Your task to perform on an android device: toggle notification dots Image 0: 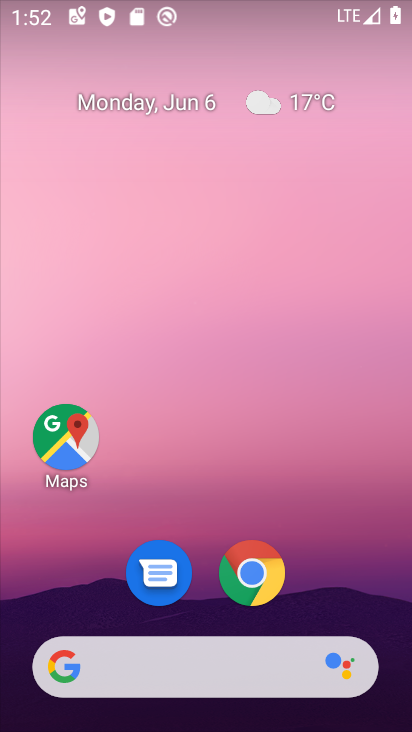
Step 0: drag from (377, 562) to (363, 235)
Your task to perform on an android device: toggle notification dots Image 1: 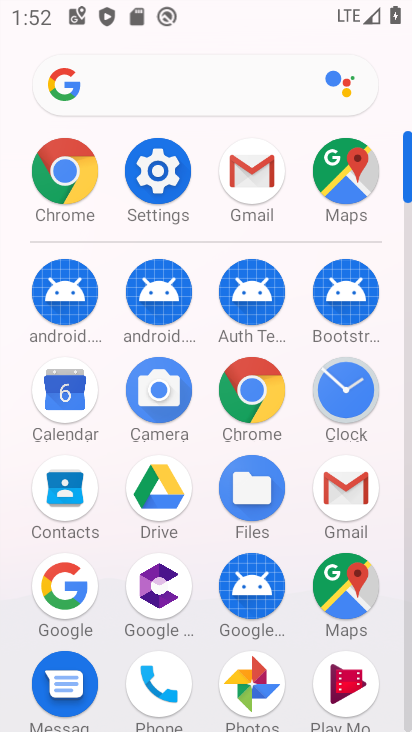
Step 1: click (170, 163)
Your task to perform on an android device: toggle notification dots Image 2: 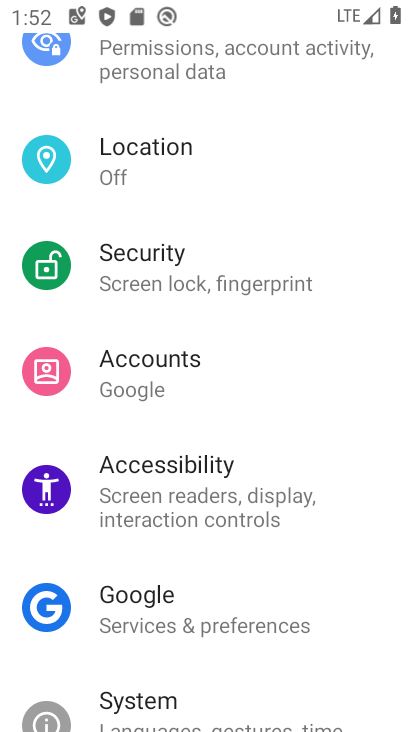
Step 2: drag from (335, 503) to (344, 418)
Your task to perform on an android device: toggle notification dots Image 3: 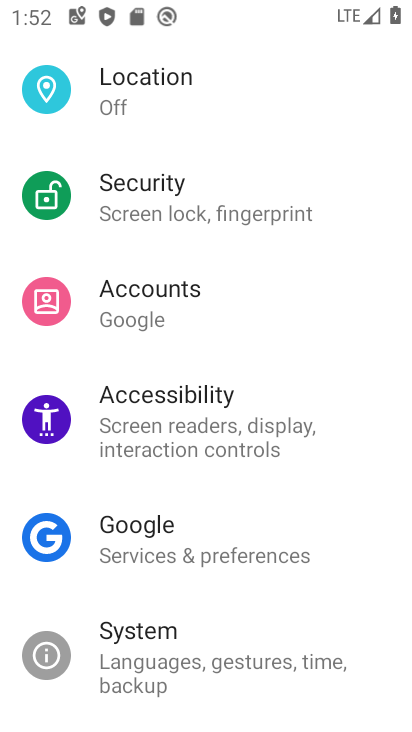
Step 3: drag from (350, 541) to (350, 390)
Your task to perform on an android device: toggle notification dots Image 4: 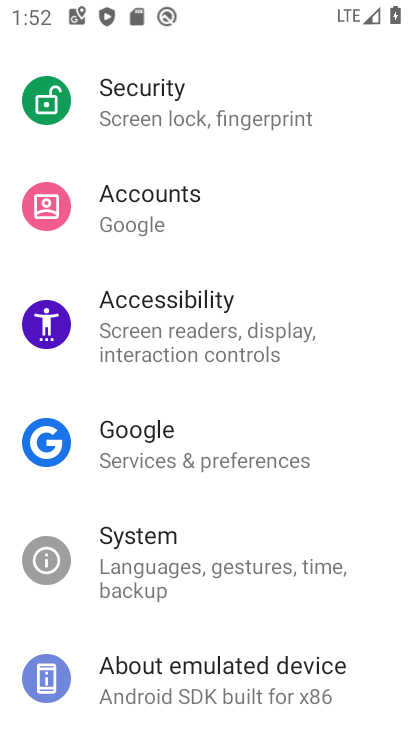
Step 4: drag from (353, 569) to (356, 426)
Your task to perform on an android device: toggle notification dots Image 5: 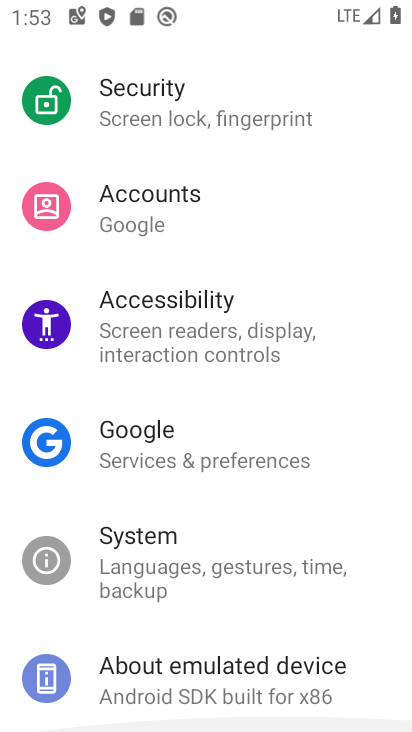
Step 5: drag from (358, 344) to (368, 455)
Your task to perform on an android device: toggle notification dots Image 6: 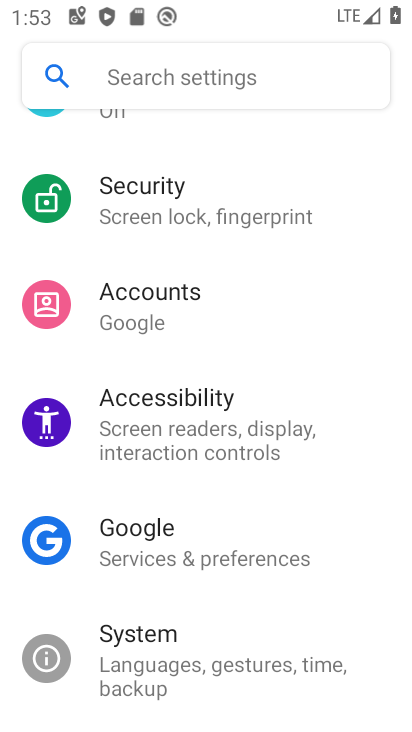
Step 6: drag from (323, 333) to (347, 493)
Your task to perform on an android device: toggle notification dots Image 7: 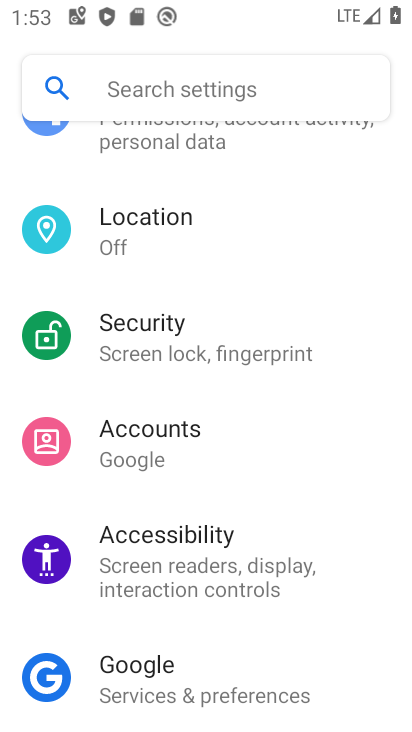
Step 7: drag from (344, 275) to (353, 404)
Your task to perform on an android device: toggle notification dots Image 8: 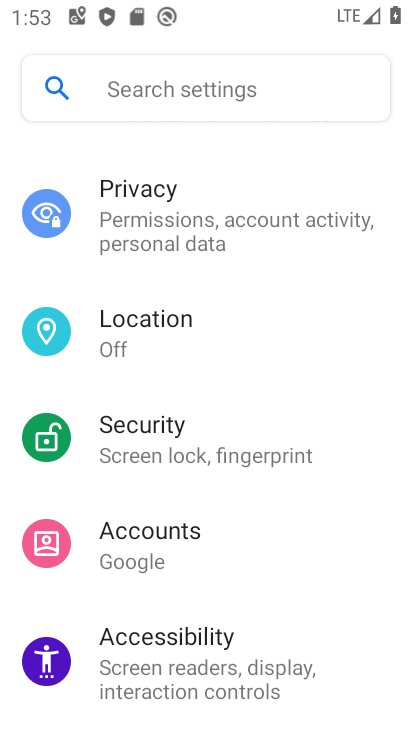
Step 8: drag from (347, 286) to (355, 381)
Your task to perform on an android device: toggle notification dots Image 9: 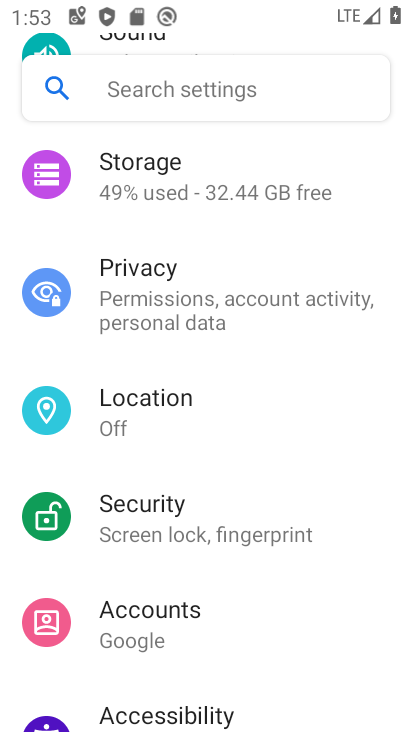
Step 9: drag from (344, 264) to (353, 377)
Your task to perform on an android device: toggle notification dots Image 10: 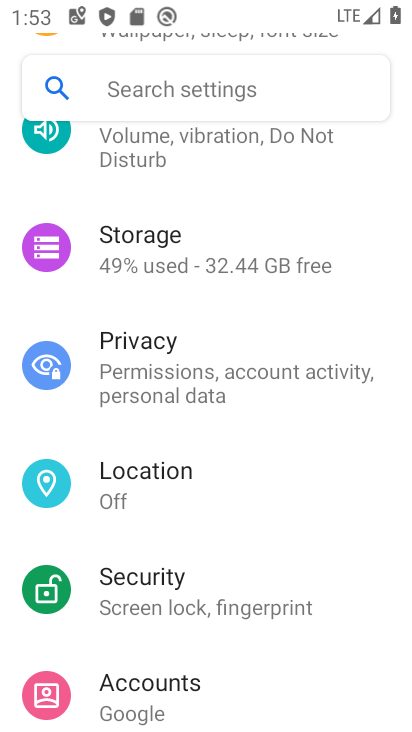
Step 10: drag from (342, 232) to (342, 348)
Your task to perform on an android device: toggle notification dots Image 11: 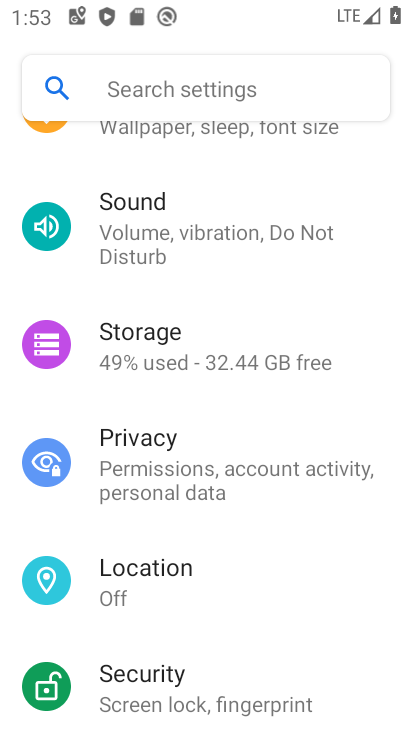
Step 11: drag from (337, 191) to (345, 336)
Your task to perform on an android device: toggle notification dots Image 12: 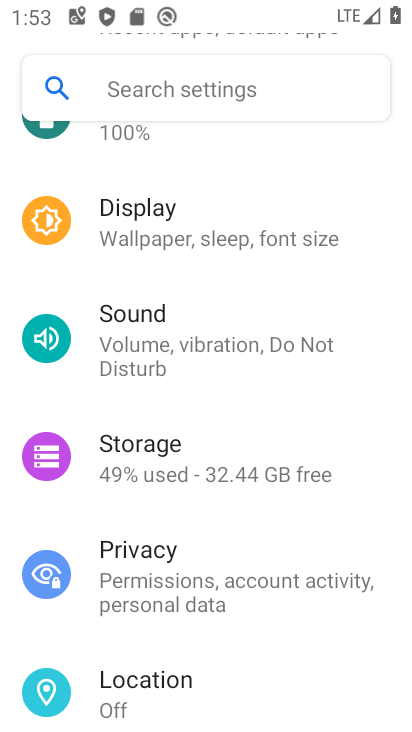
Step 12: drag from (345, 196) to (345, 358)
Your task to perform on an android device: toggle notification dots Image 13: 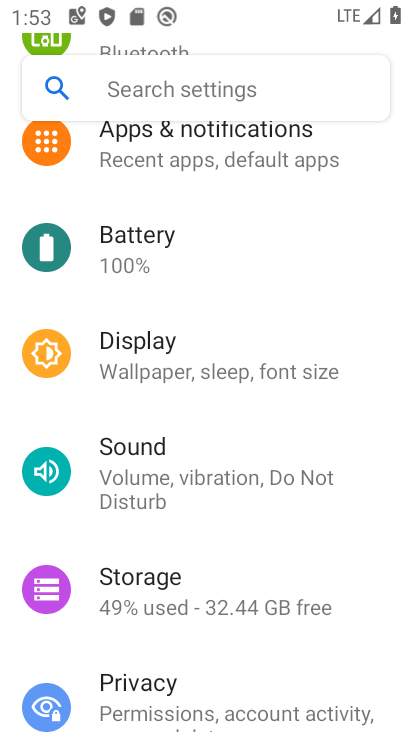
Step 13: drag from (332, 224) to (333, 380)
Your task to perform on an android device: toggle notification dots Image 14: 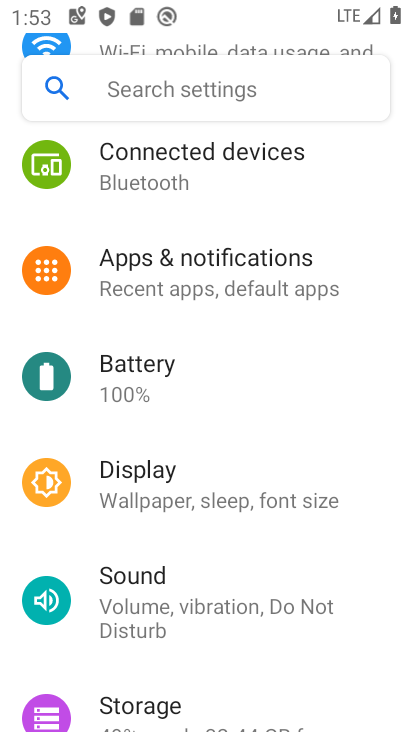
Step 14: click (287, 264)
Your task to perform on an android device: toggle notification dots Image 15: 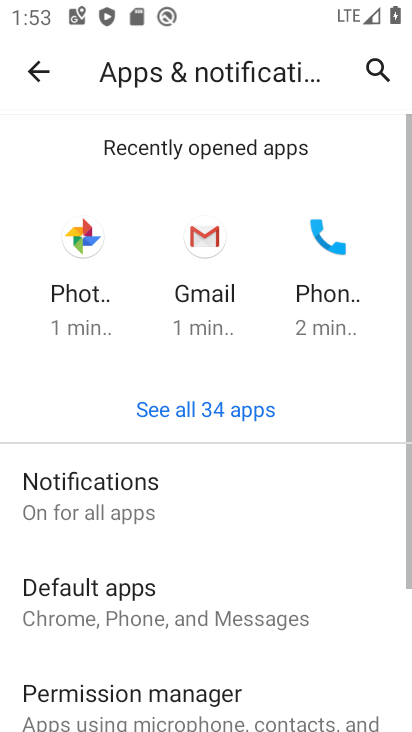
Step 15: drag from (300, 469) to (291, 353)
Your task to perform on an android device: toggle notification dots Image 16: 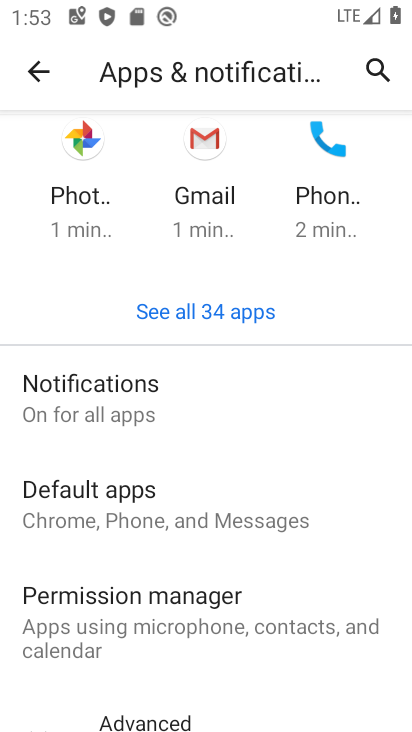
Step 16: click (269, 407)
Your task to perform on an android device: toggle notification dots Image 17: 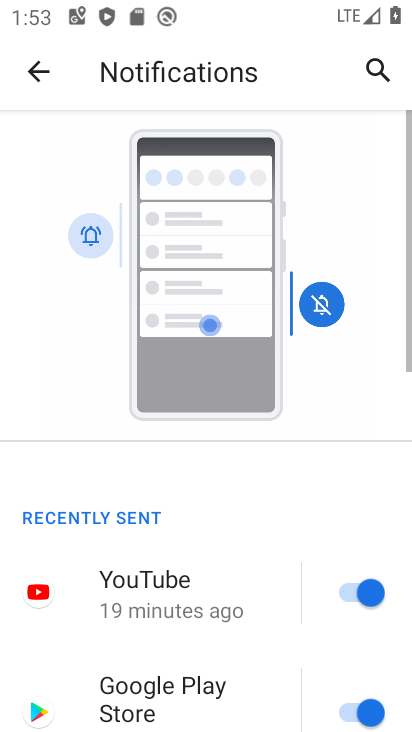
Step 17: drag from (276, 455) to (278, 337)
Your task to perform on an android device: toggle notification dots Image 18: 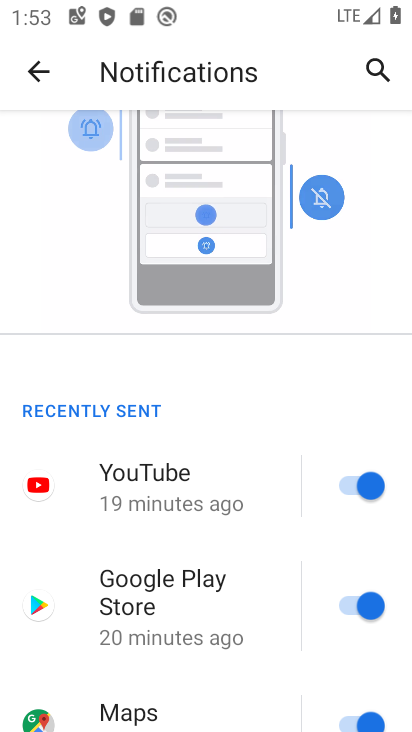
Step 18: drag from (260, 488) to (259, 389)
Your task to perform on an android device: toggle notification dots Image 19: 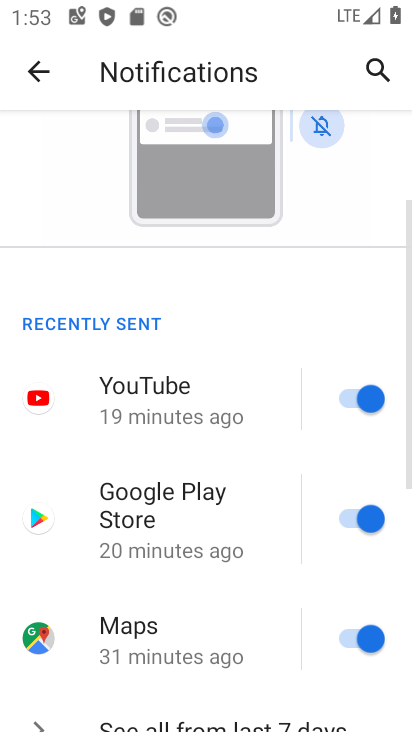
Step 19: drag from (263, 499) to (264, 413)
Your task to perform on an android device: toggle notification dots Image 20: 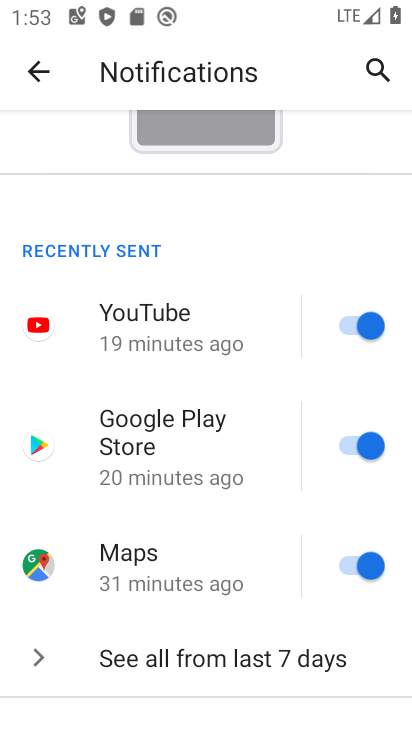
Step 20: drag from (263, 511) to (264, 417)
Your task to perform on an android device: toggle notification dots Image 21: 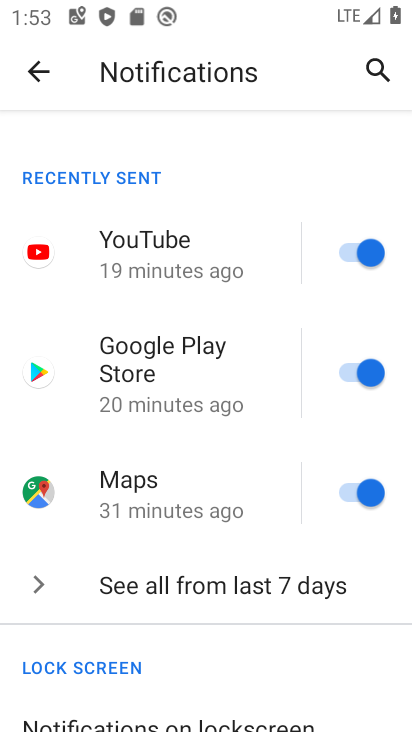
Step 21: drag from (261, 531) to (261, 422)
Your task to perform on an android device: toggle notification dots Image 22: 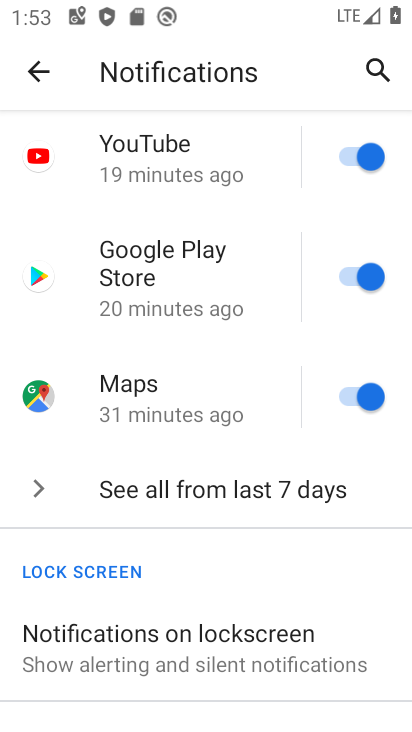
Step 22: drag from (270, 549) to (270, 445)
Your task to perform on an android device: toggle notification dots Image 23: 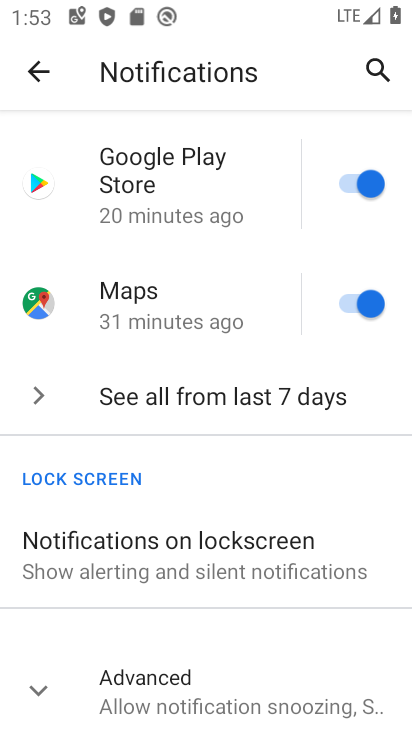
Step 23: drag from (261, 615) to (260, 436)
Your task to perform on an android device: toggle notification dots Image 24: 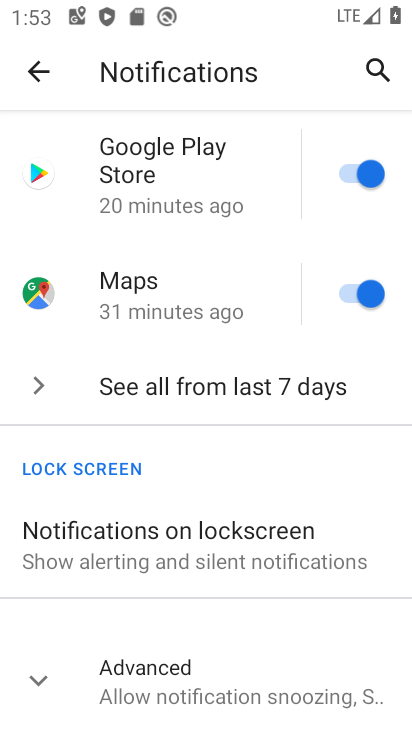
Step 24: click (214, 649)
Your task to perform on an android device: toggle notification dots Image 25: 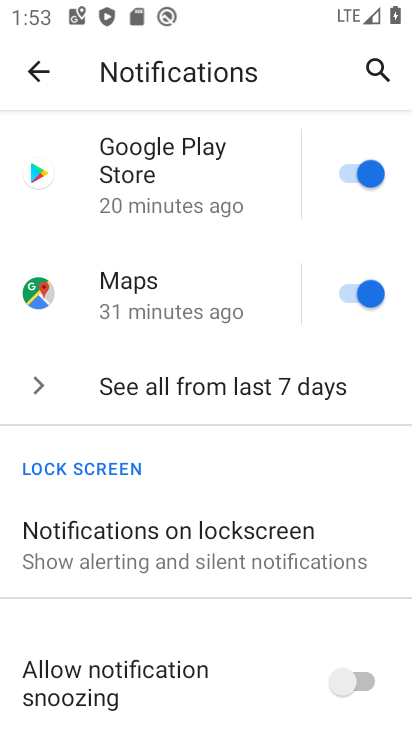
Step 25: drag from (272, 708) to (272, 533)
Your task to perform on an android device: toggle notification dots Image 26: 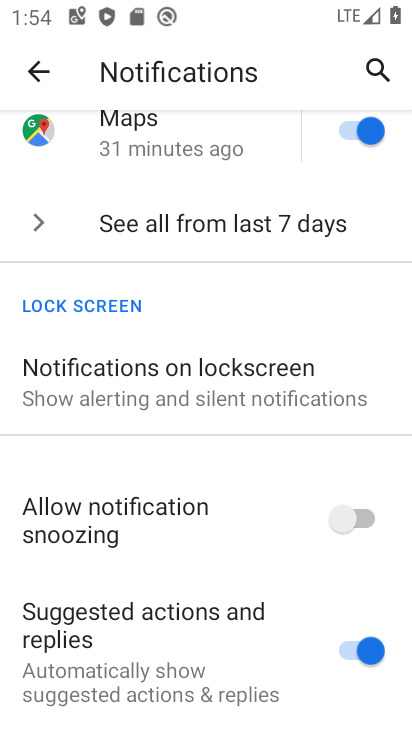
Step 26: drag from (273, 633) to (274, 509)
Your task to perform on an android device: toggle notification dots Image 27: 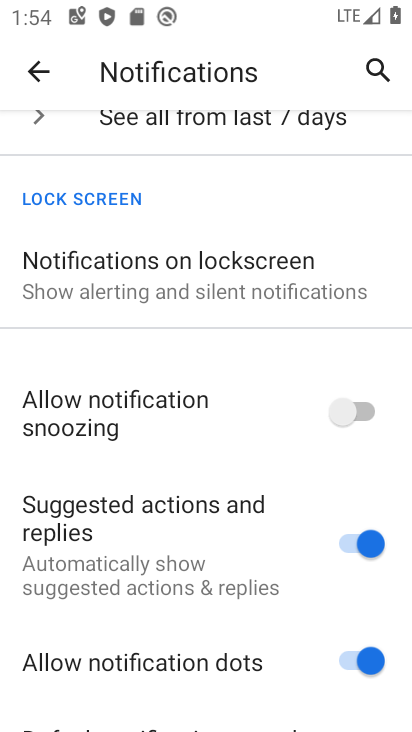
Step 27: click (369, 657)
Your task to perform on an android device: toggle notification dots Image 28: 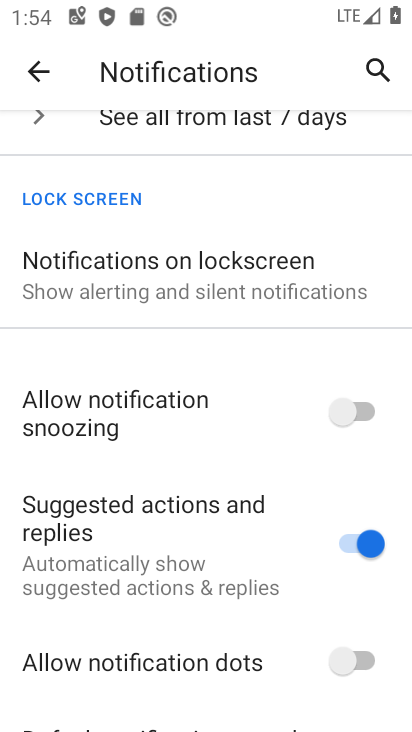
Step 28: task complete